Your task to perform on an android device: delete a single message in the gmail app Image 0: 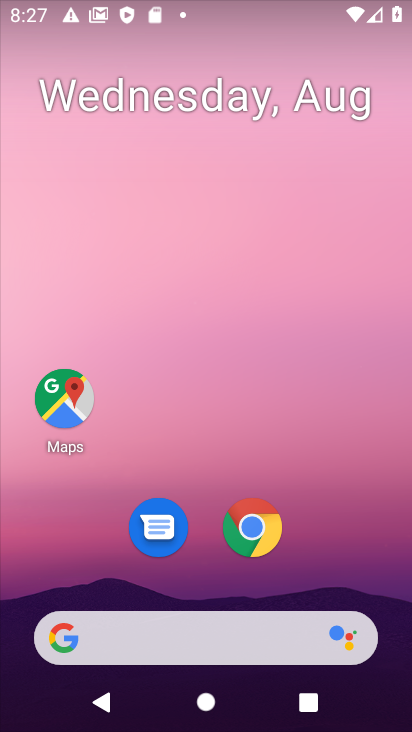
Step 0: drag from (211, 588) to (390, 12)
Your task to perform on an android device: delete a single message in the gmail app Image 1: 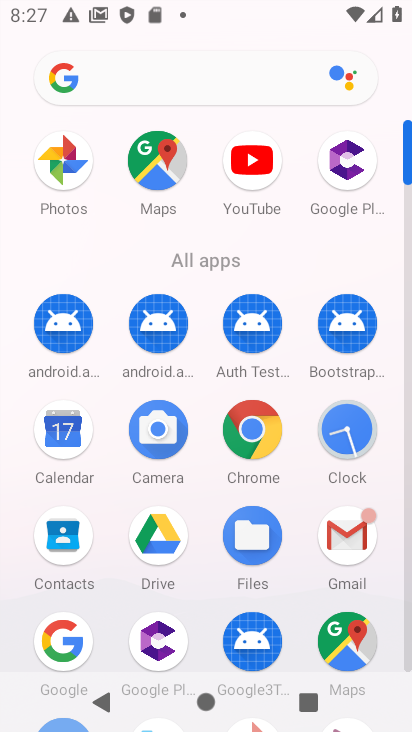
Step 1: click (353, 553)
Your task to perform on an android device: delete a single message in the gmail app Image 2: 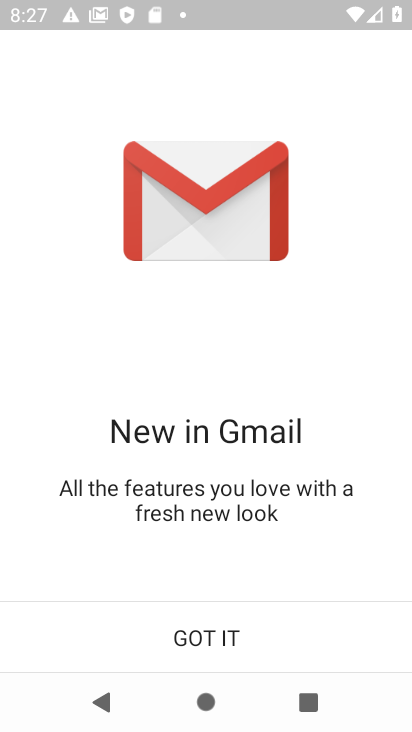
Step 2: click (193, 635)
Your task to perform on an android device: delete a single message in the gmail app Image 3: 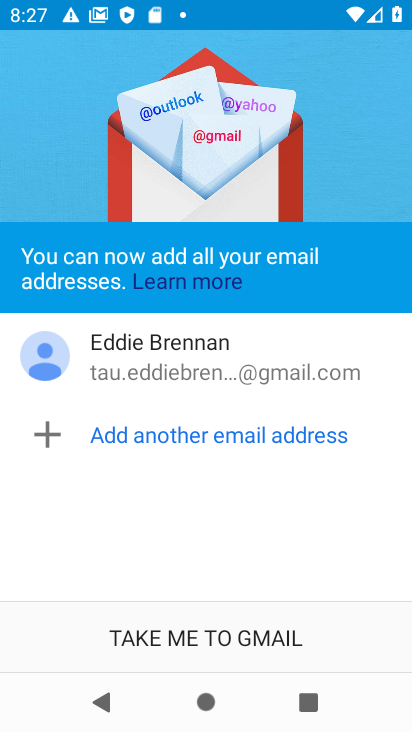
Step 3: click (193, 635)
Your task to perform on an android device: delete a single message in the gmail app Image 4: 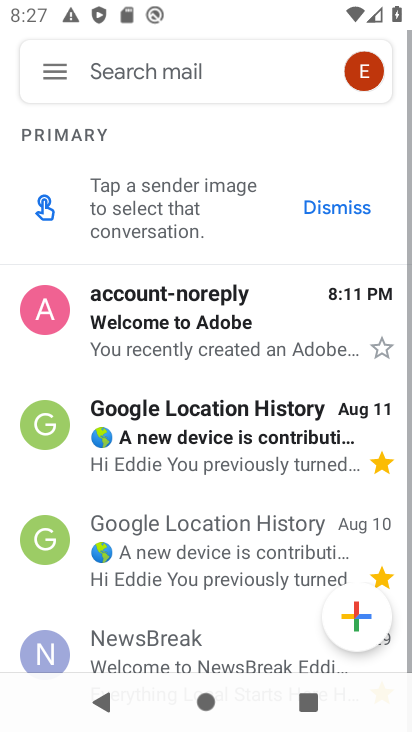
Step 4: click (40, 296)
Your task to perform on an android device: delete a single message in the gmail app Image 5: 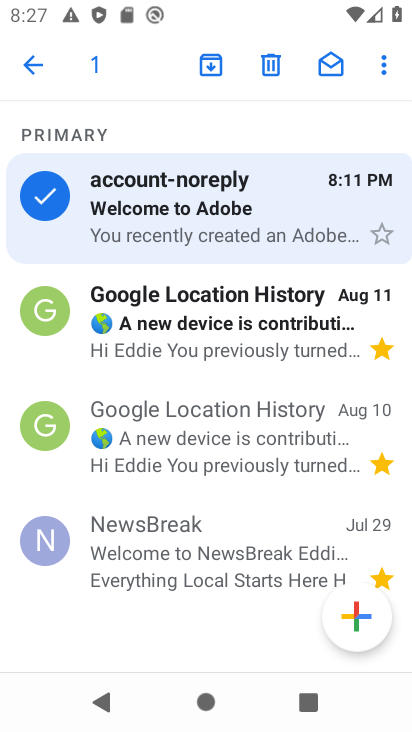
Step 5: click (274, 67)
Your task to perform on an android device: delete a single message in the gmail app Image 6: 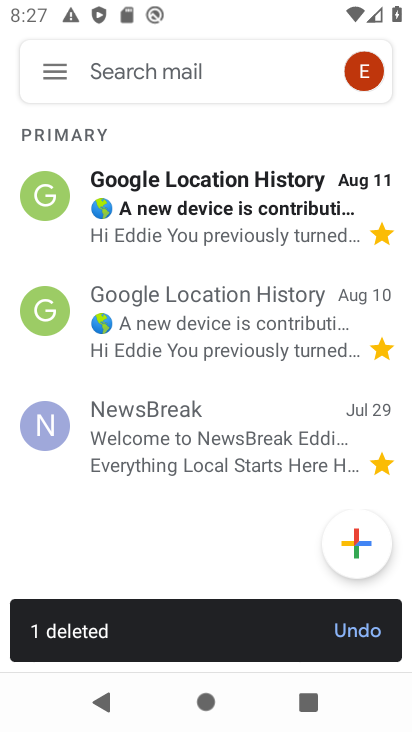
Step 6: task complete